Your task to perform on an android device: Open internet settings Image 0: 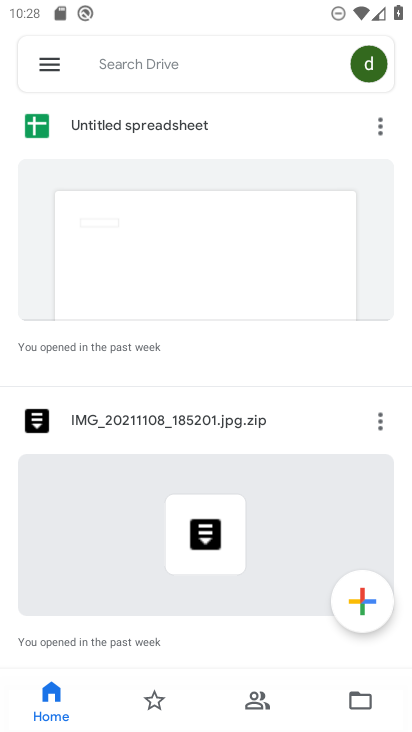
Step 0: press back button
Your task to perform on an android device: Open internet settings Image 1: 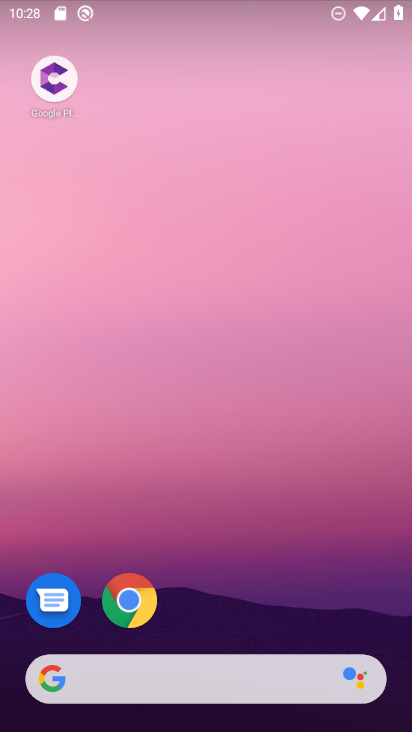
Step 1: drag from (240, 573) to (265, 49)
Your task to perform on an android device: Open internet settings Image 2: 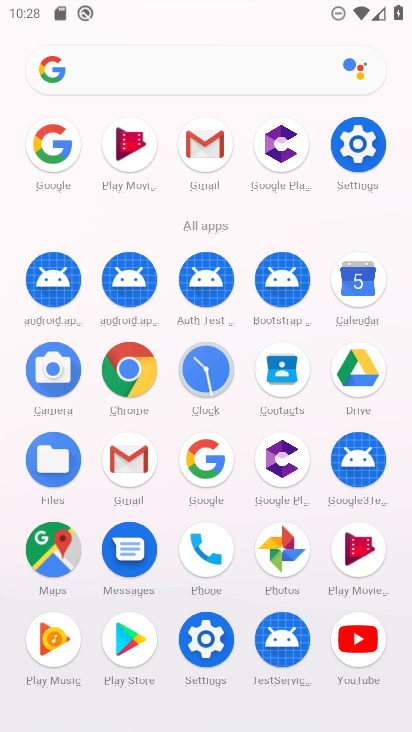
Step 2: click (365, 140)
Your task to perform on an android device: Open internet settings Image 3: 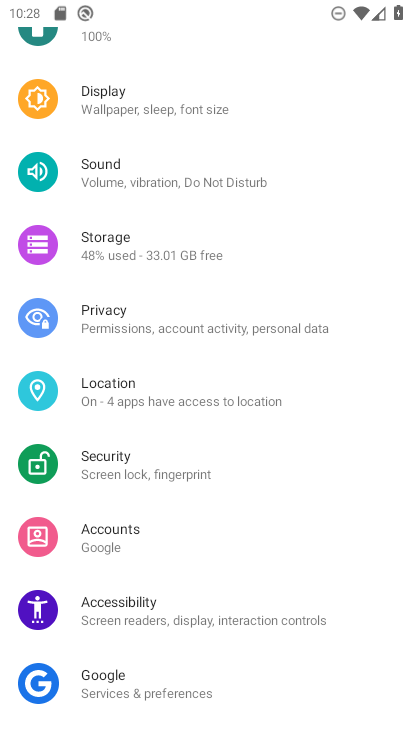
Step 3: drag from (244, 353) to (156, 629)
Your task to perform on an android device: Open internet settings Image 4: 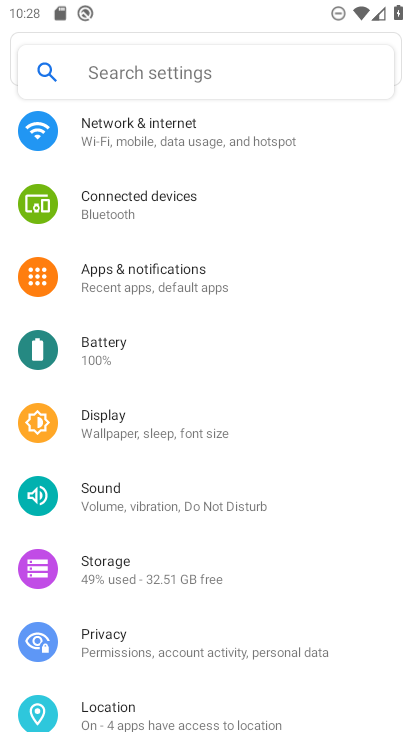
Step 4: click (154, 142)
Your task to perform on an android device: Open internet settings Image 5: 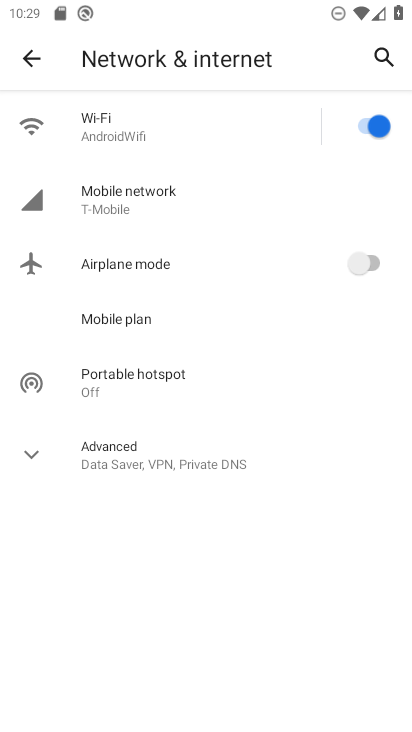
Step 5: task complete